Your task to perform on an android device: change your default location settings in chrome Image 0: 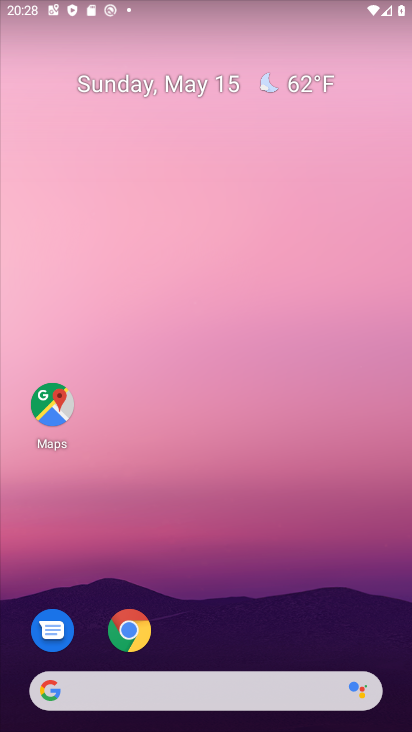
Step 0: drag from (222, 634) to (282, 63)
Your task to perform on an android device: change your default location settings in chrome Image 1: 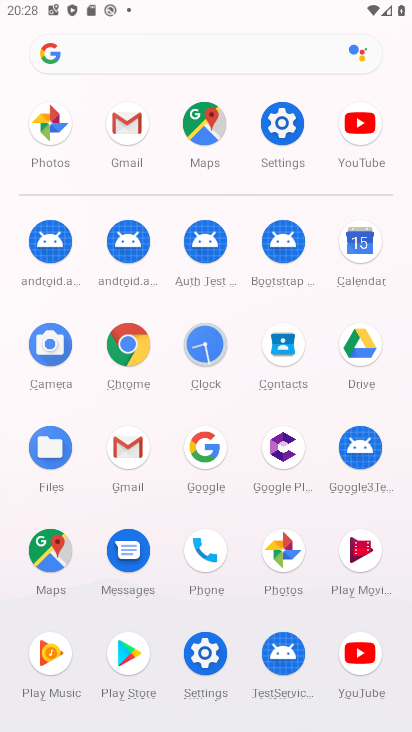
Step 1: click (113, 348)
Your task to perform on an android device: change your default location settings in chrome Image 2: 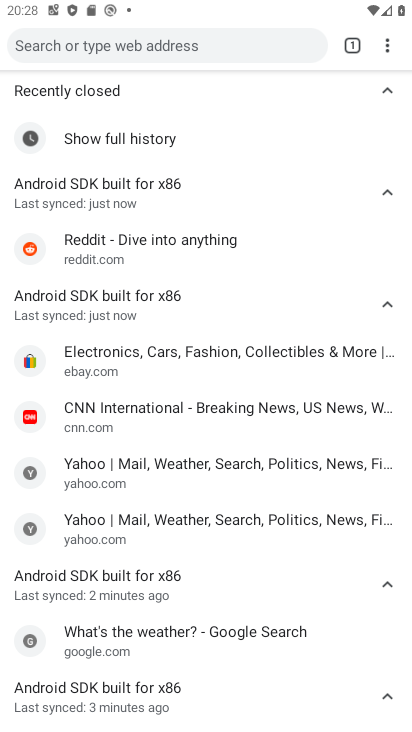
Step 2: click (387, 51)
Your task to perform on an android device: change your default location settings in chrome Image 3: 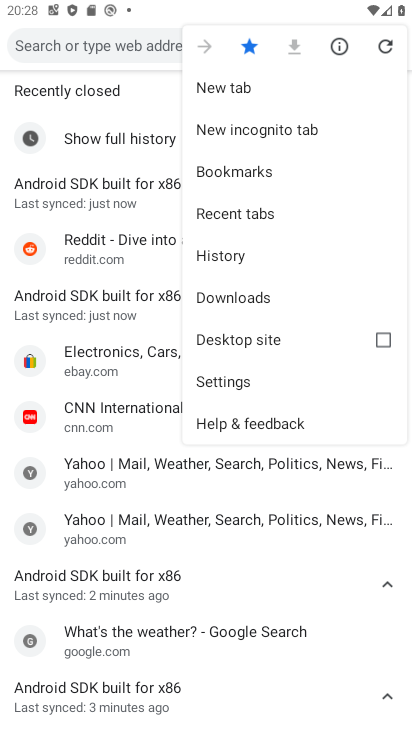
Step 3: click (219, 376)
Your task to perform on an android device: change your default location settings in chrome Image 4: 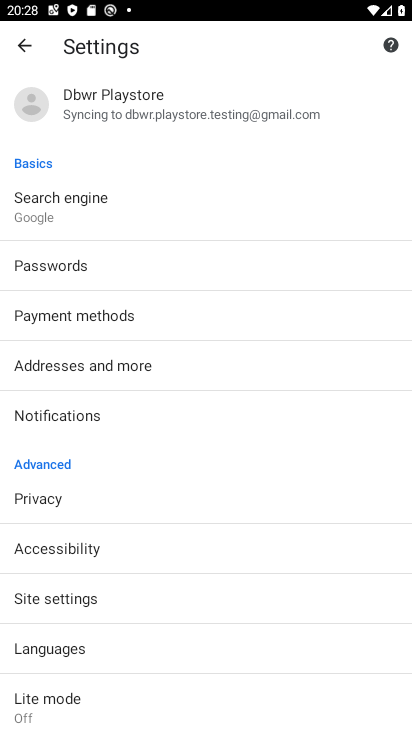
Step 4: click (51, 598)
Your task to perform on an android device: change your default location settings in chrome Image 5: 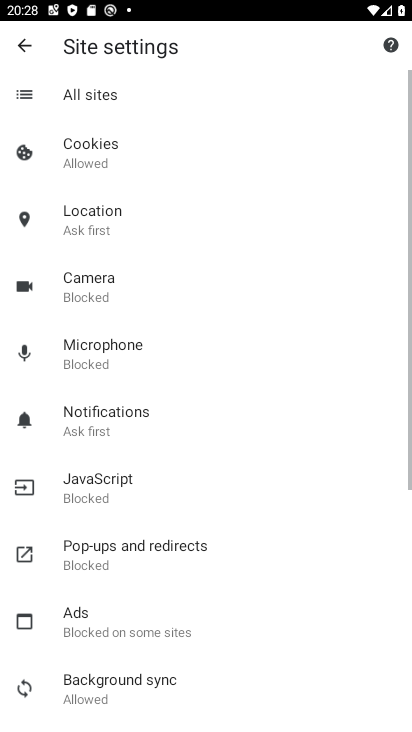
Step 5: click (102, 223)
Your task to perform on an android device: change your default location settings in chrome Image 6: 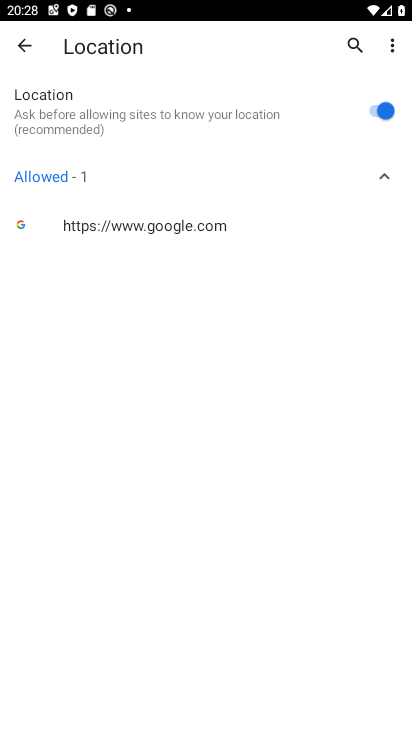
Step 6: click (364, 106)
Your task to perform on an android device: change your default location settings in chrome Image 7: 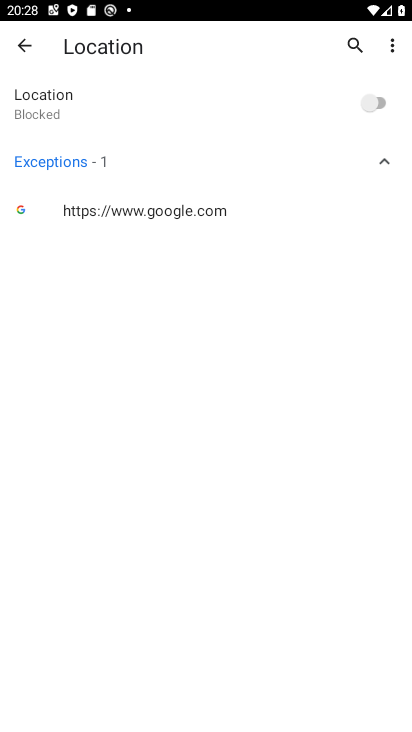
Step 7: task complete